Your task to perform on an android device: Go to Wikipedia Image 0: 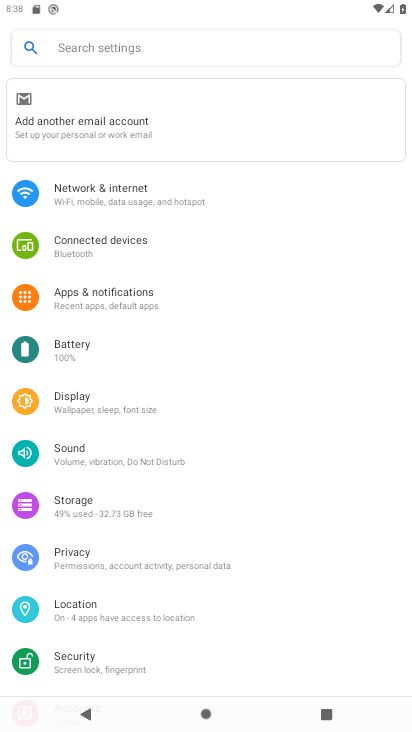
Step 0: press home button
Your task to perform on an android device: Go to Wikipedia Image 1: 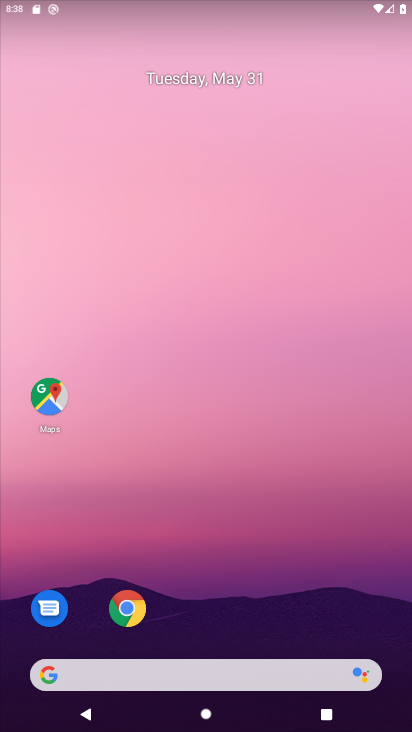
Step 1: click (126, 606)
Your task to perform on an android device: Go to Wikipedia Image 2: 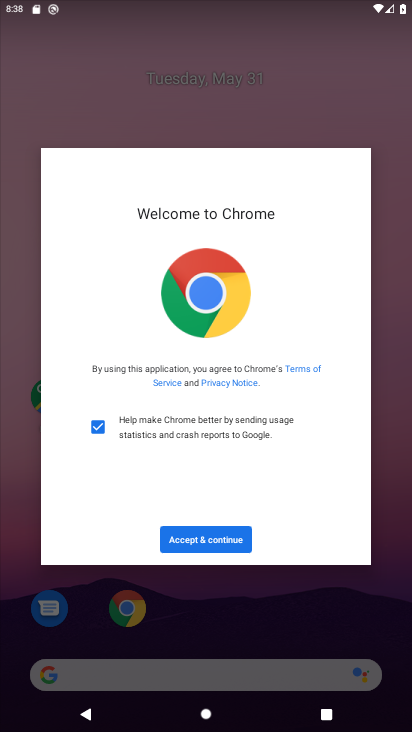
Step 2: click (190, 536)
Your task to perform on an android device: Go to Wikipedia Image 3: 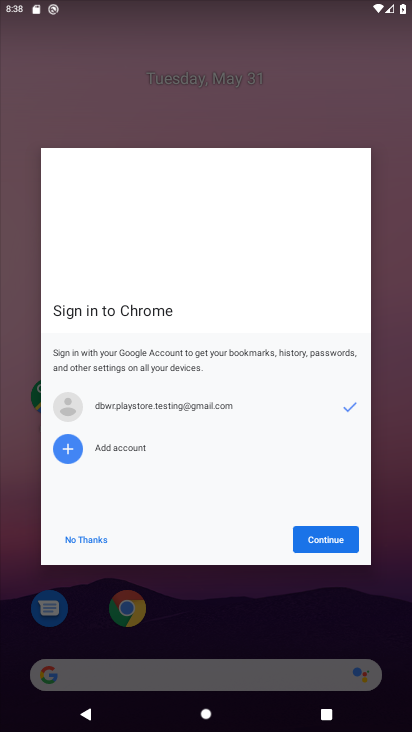
Step 3: click (321, 537)
Your task to perform on an android device: Go to Wikipedia Image 4: 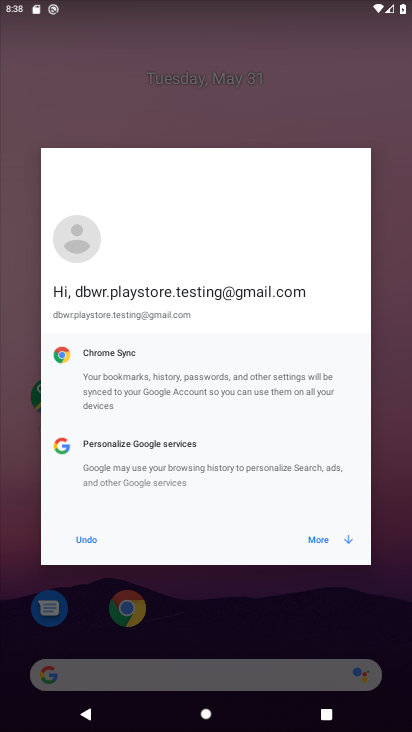
Step 4: click (321, 537)
Your task to perform on an android device: Go to Wikipedia Image 5: 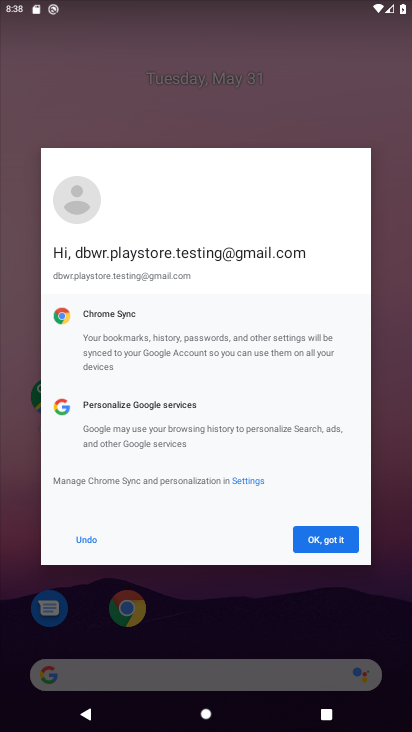
Step 5: click (321, 537)
Your task to perform on an android device: Go to Wikipedia Image 6: 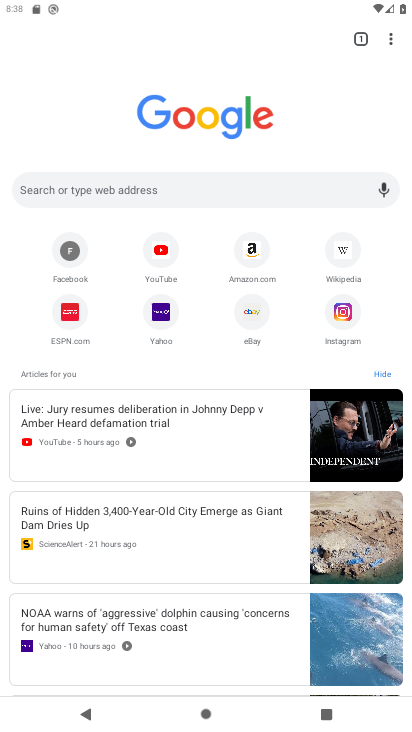
Step 6: click (343, 253)
Your task to perform on an android device: Go to Wikipedia Image 7: 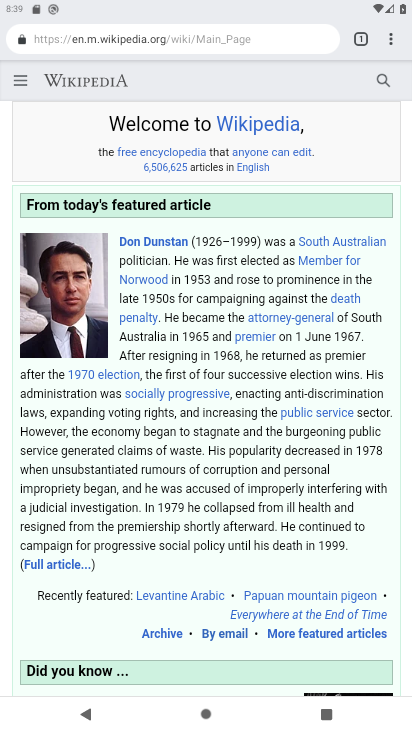
Step 7: task complete